Your task to perform on an android device: Go to wifi settings Image 0: 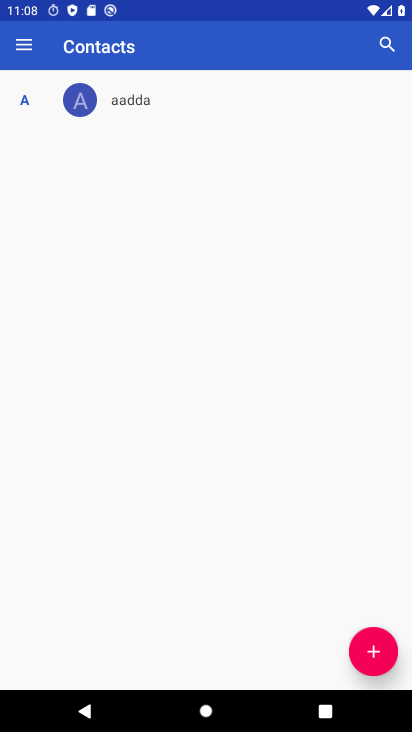
Step 0: press home button
Your task to perform on an android device: Go to wifi settings Image 1: 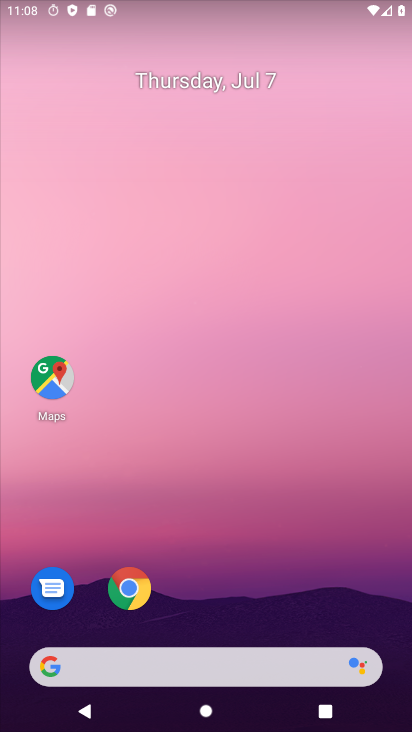
Step 1: drag from (325, 582) to (299, 63)
Your task to perform on an android device: Go to wifi settings Image 2: 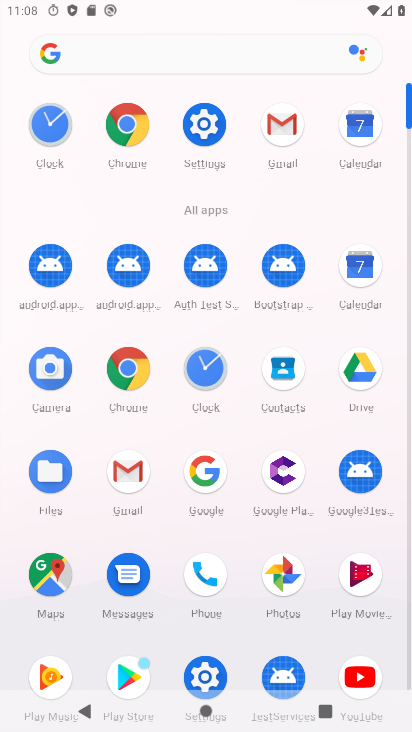
Step 2: click (203, 119)
Your task to perform on an android device: Go to wifi settings Image 3: 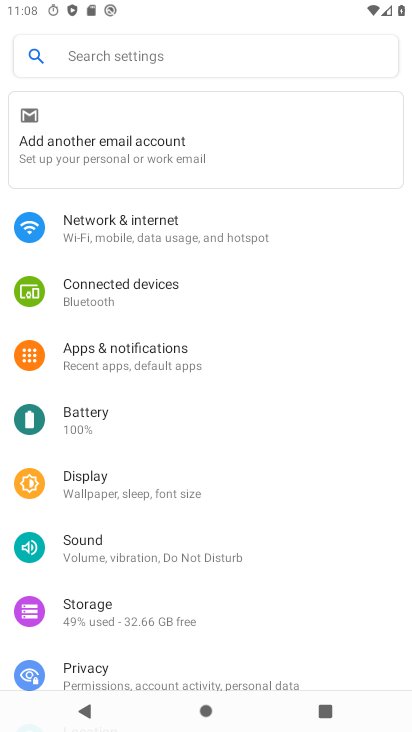
Step 3: click (113, 231)
Your task to perform on an android device: Go to wifi settings Image 4: 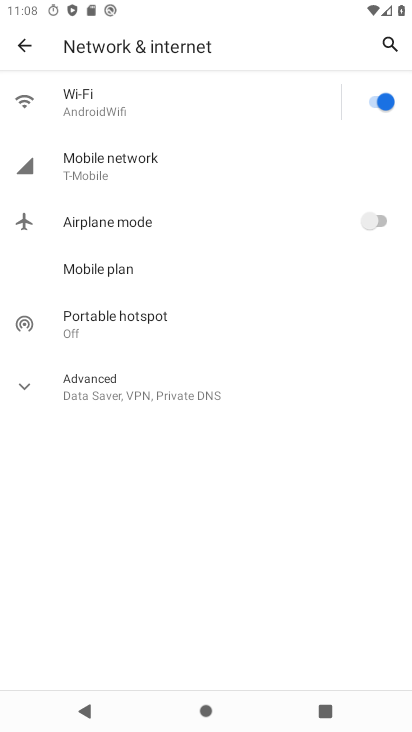
Step 4: click (204, 88)
Your task to perform on an android device: Go to wifi settings Image 5: 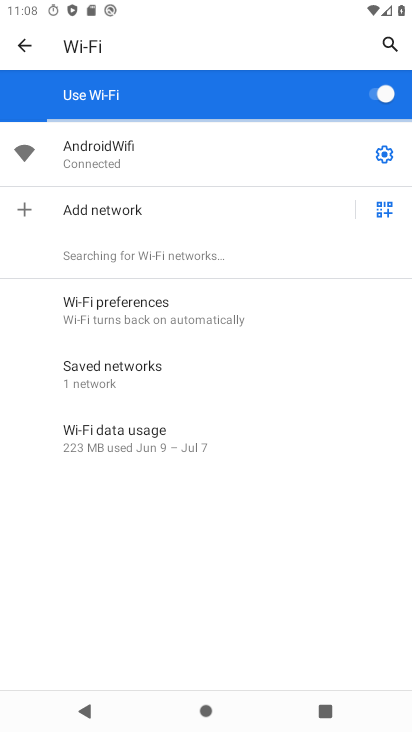
Step 5: click (390, 151)
Your task to perform on an android device: Go to wifi settings Image 6: 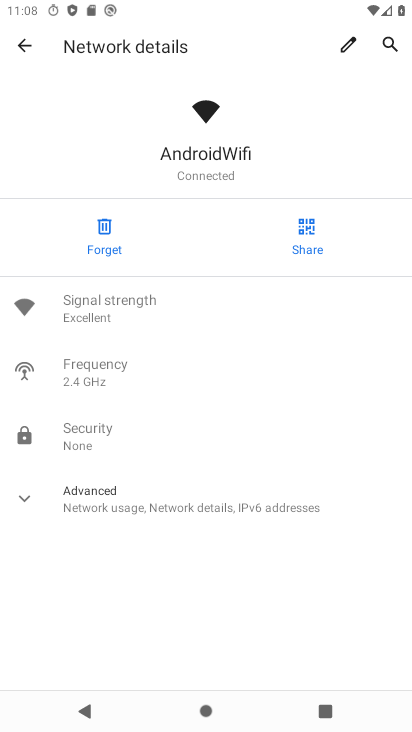
Step 6: task complete